Your task to perform on an android device: turn on airplane mode Image 0: 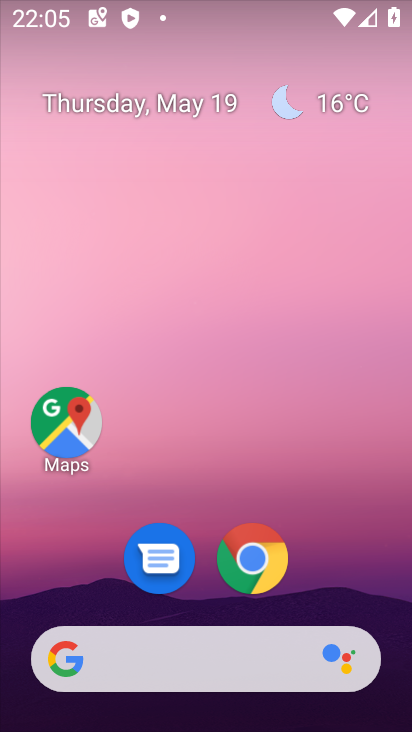
Step 0: drag from (200, 724) to (192, 96)
Your task to perform on an android device: turn on airplane mode Image 1: 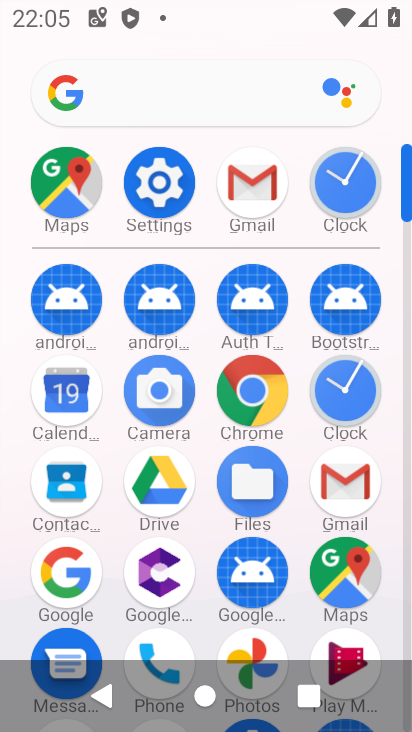
Step 1: click (162, 174)
Your task to perform on an android device: turn on airplane mode Image 2: 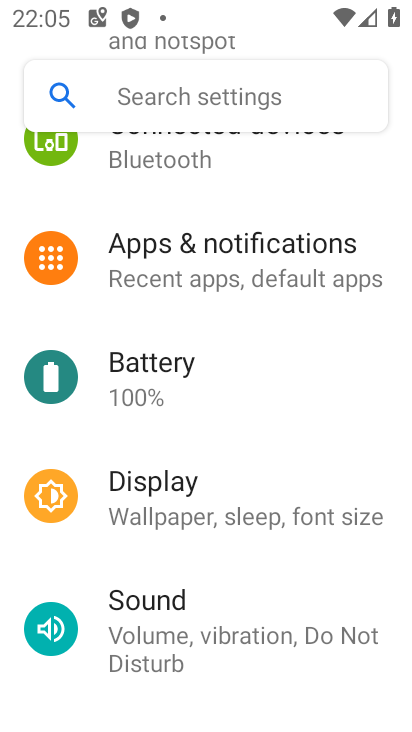
Step 2: drag from (198, 142) to (185, 561)
Your task to perform on an android device: turn on airplane mode Image 3: 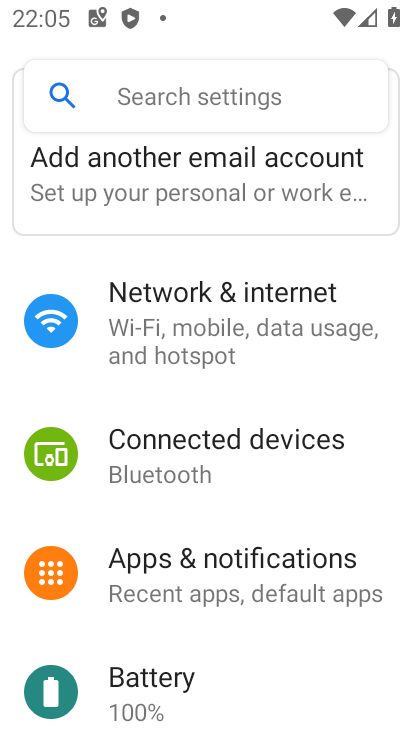
Step 3: click (225, 319)
Your task to perform on an android device: turn on airplane mode Image 4: 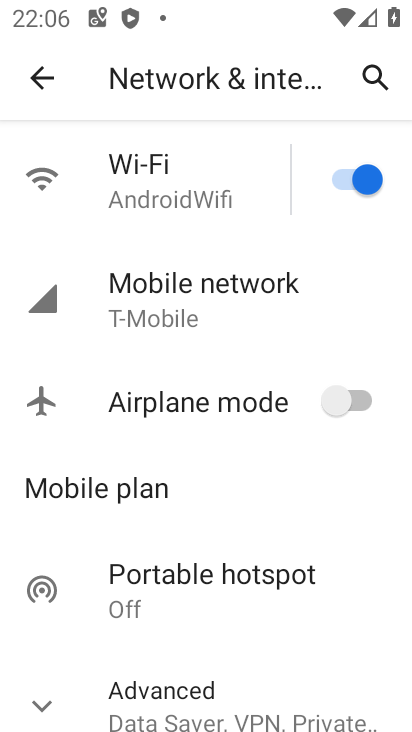
Step 4: click (367, 395)
Your task to perform on an android device: turn on airplane mode Image 5: 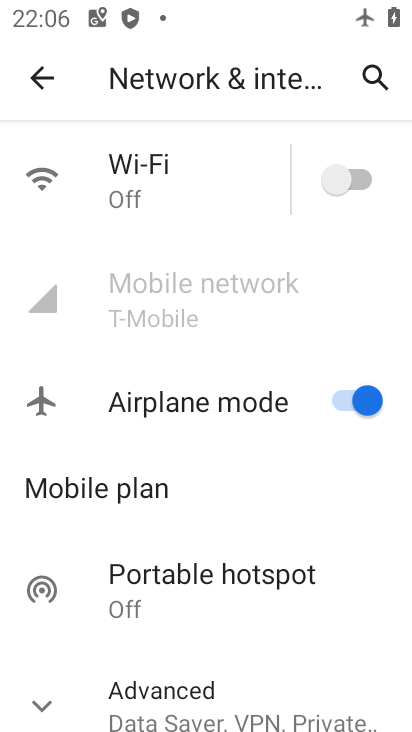
Step 5: task complete